Your task to perform on an android device: turn on airplane mode Image 0: 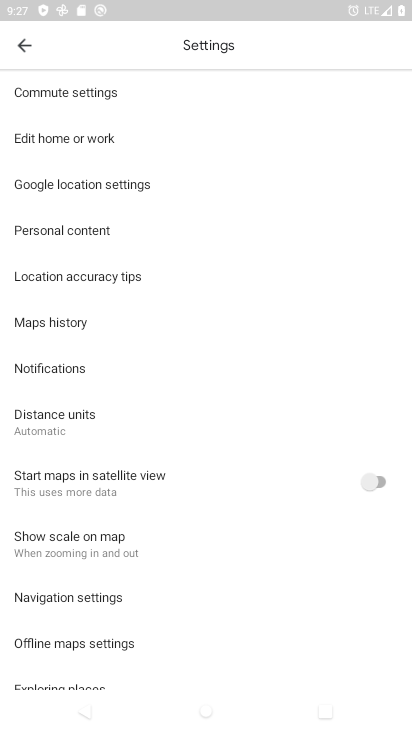
Step 0: press home button
Your task to perform on an android device: turn on airplane mode Image 1: 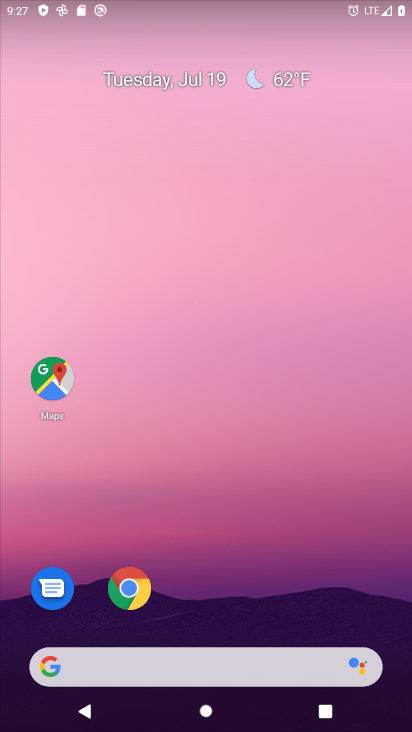
Step 1: drag from (286, 625) to (195, 23)
Your task to perform on an android device: turn on airplane mode Image 2: 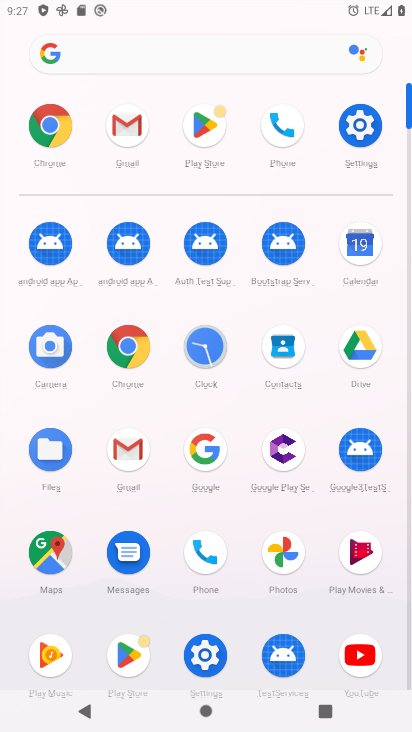
Step 2: click (364, 124)
Your task to perform on an android device: turn on airplane mode Image 3: 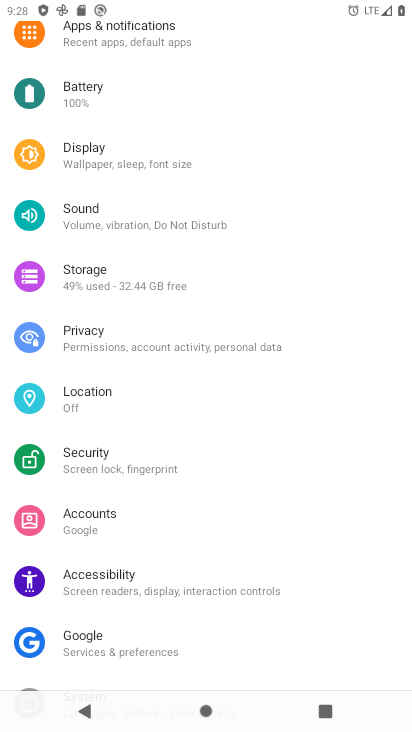
Step 3: drag from (163, 113) to (181, 695)
Your task to perform on an android device: turn on airplane mode Image 4: 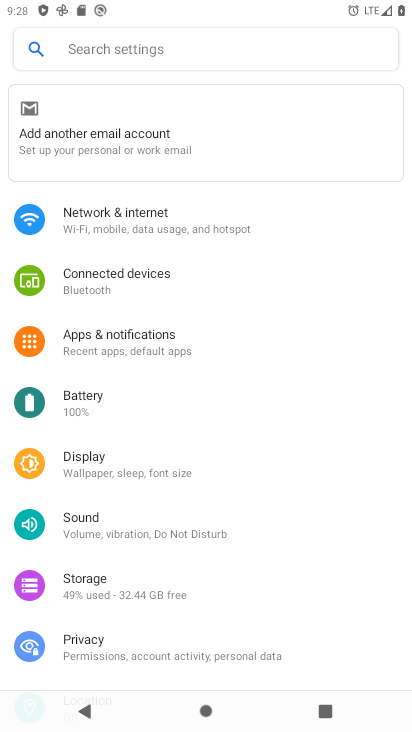
Step 4: click (110, 223)
Your task to perform on an android device: turn on airplane mode Image 5: 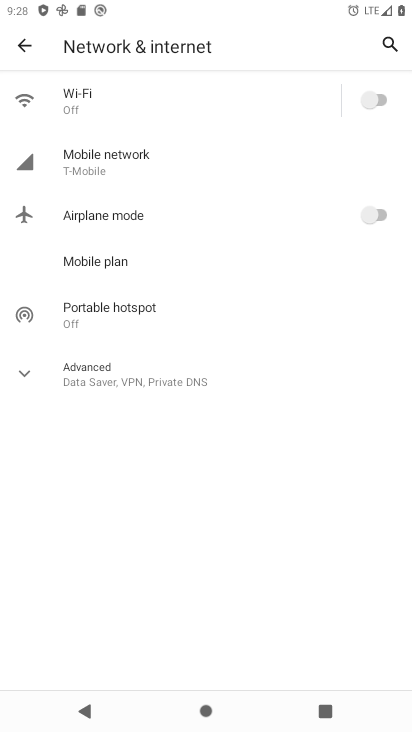
Step 5: click (129, 215)
Your task to perform on an android device: turn on airplane mode Image 6: 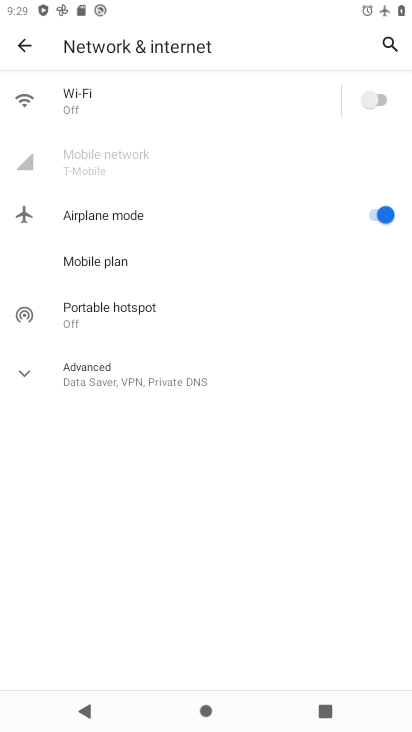
Step 6: task complete